Your task to perform on an android device: set the stopwatch Image 0: 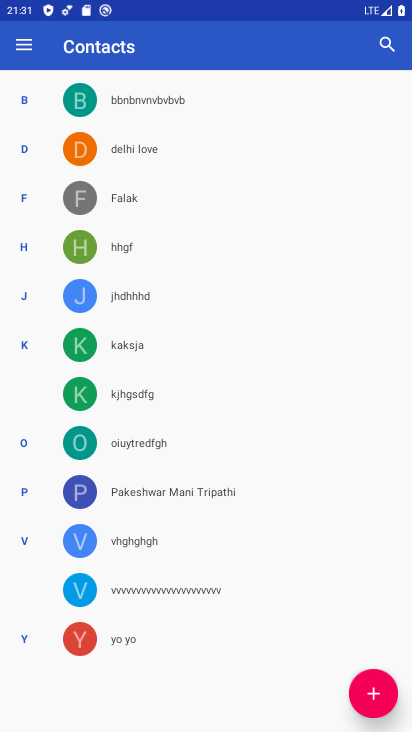
Step 0: press home button
Your task to perform on an android device: set the stopwatch Image 1: 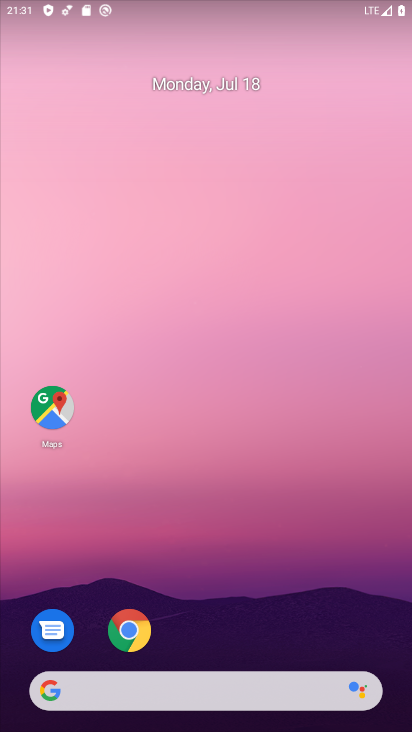
Step 1: drag from (183, 617) to (195, 205)
Your task to perform on an android device: set the stopwatch Image 2: 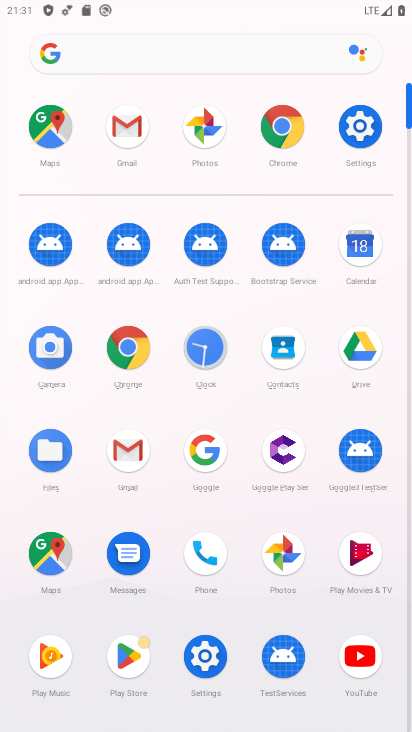
Step 2: click (209, 333)
Your task to perform on an android device: set the stopwatch Image 3: 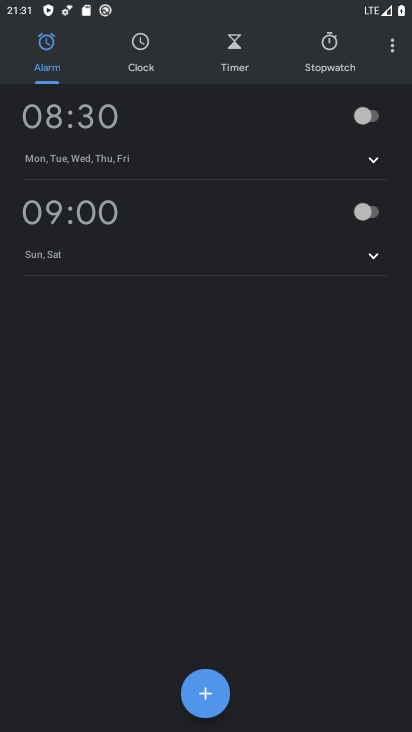
Step 3: click (337, 51)
Your task to perform on an android device: set the stopwatch Image 4: 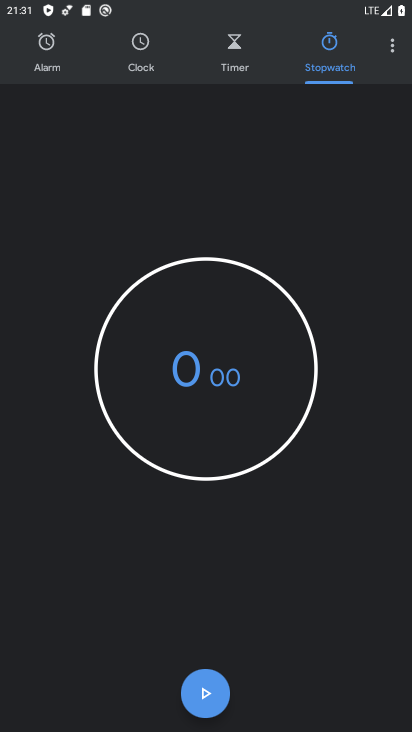
Step 4: task complete